Your task to perform on an android device: Do I have any events this weekend? Image 0: 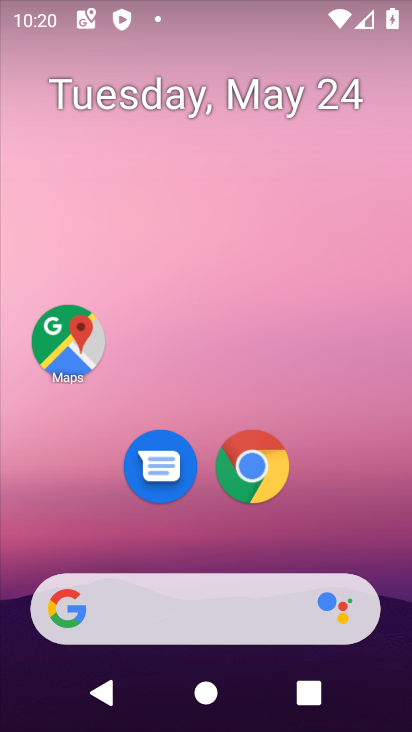
Step 0: drag from (396, 568) to (393, 310)
Your task to perform on an android device: Do I have any events this weekend? Image 1: 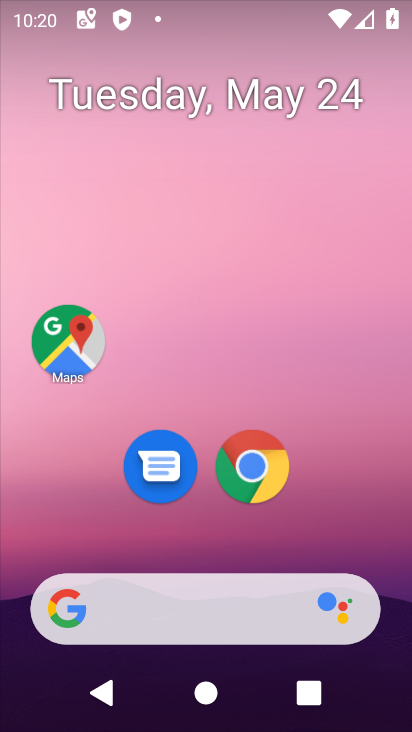
Step 1: drag from (384, 557) to (385, 229)
Your task to perform on an android device: Do I have any events this weekend? Image 2: 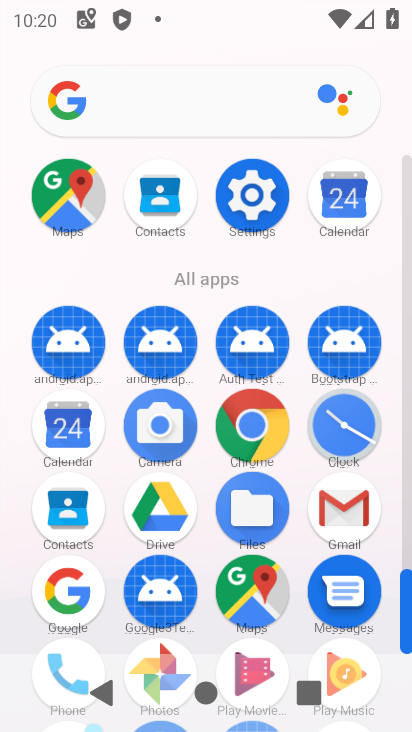
Step 2: click (72, 446)
Your task to perform on an android device: Do I have any events this weekend? Image 3: 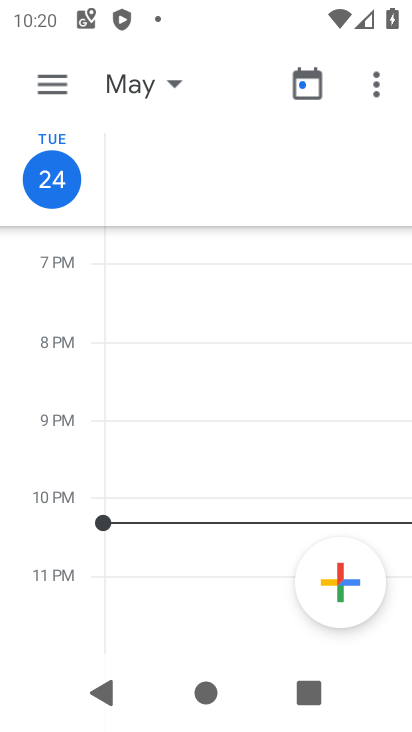
Step 3: click (55, 89)
Your task to perform on an android device: Do I have any events this weekend? Image 4: 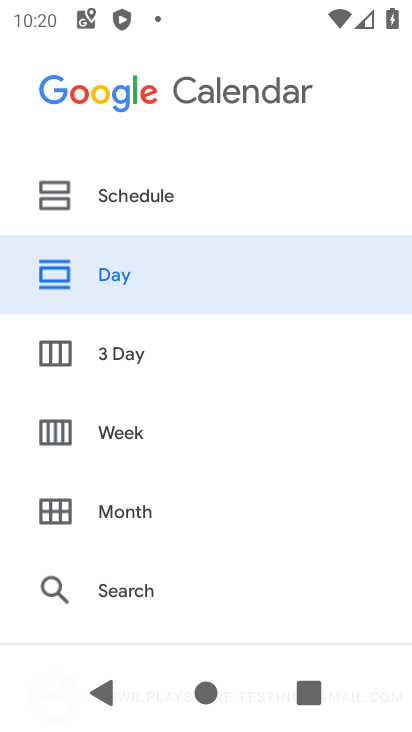
Step 4: click (129, 201)
Your task to perform on an android device: Do I have any events this weekend? Image 5: 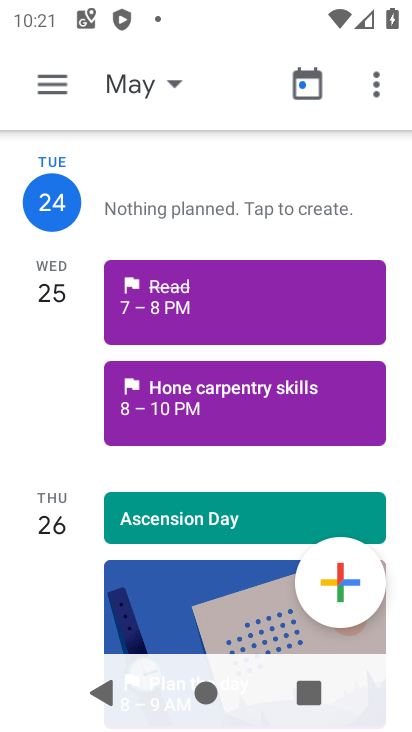
Step 5: drag from (89, 494) to (84, 362)
Your task to perform on an android device: Do I have any events this weekend? Image 6: 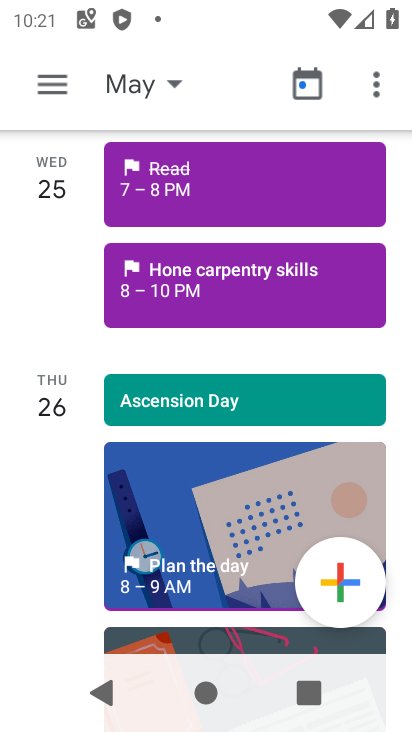
Step 6: drag from (61, 555) to (76, 367)
Your task to perform on an android device: Do I have any events this weekend? Image 7: 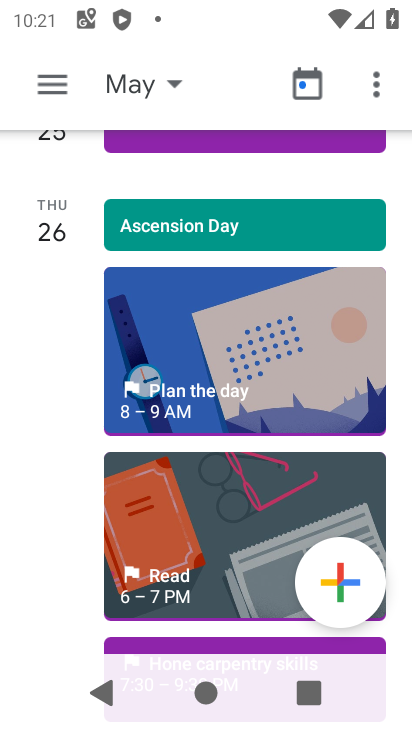
Step 7: drag from (55, 567) to (75, 434)
Your task to perform on an android device: Do I have any events this weekend? Image 8: 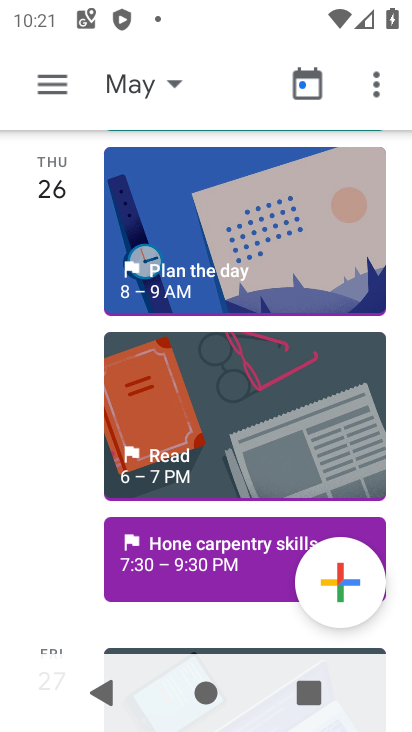
Step 8: drag from (57, 610) to (59, 430)
Your task to perform on an android device: Do I have any events this weekend? Image 9: 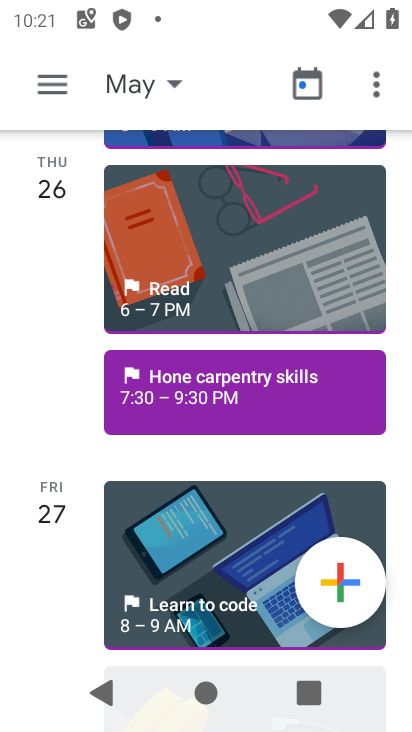
Step 9: drag from (56, 616) to (71, 427)
Your task to perform on an android device: Do I have any events this weekend? Image 10: 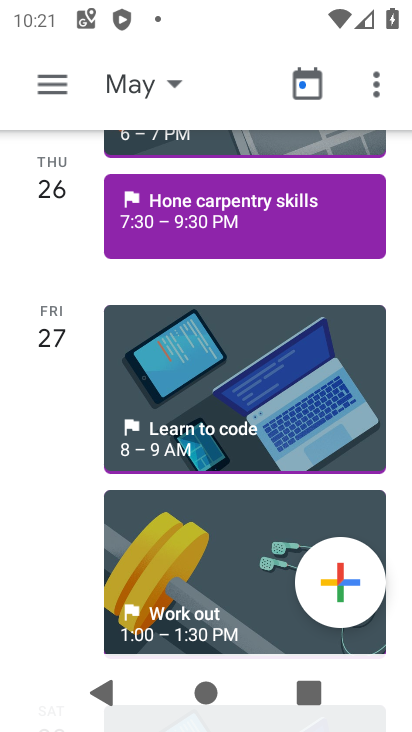
Step 10: drag from (61, 586) to (64, 353)
Your task to perform on an android device: Do I have any events this weekend? Image 11: 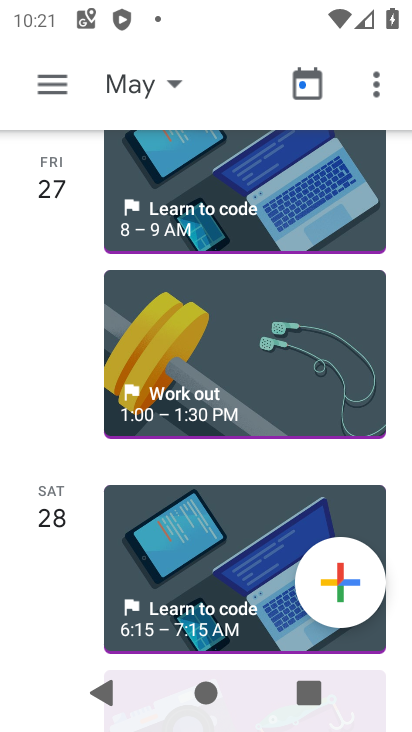
Step 11: drag from (71, 608) to (82, 365)
Your task to perform on an android device: Do I have any events this weekend? Image 12: 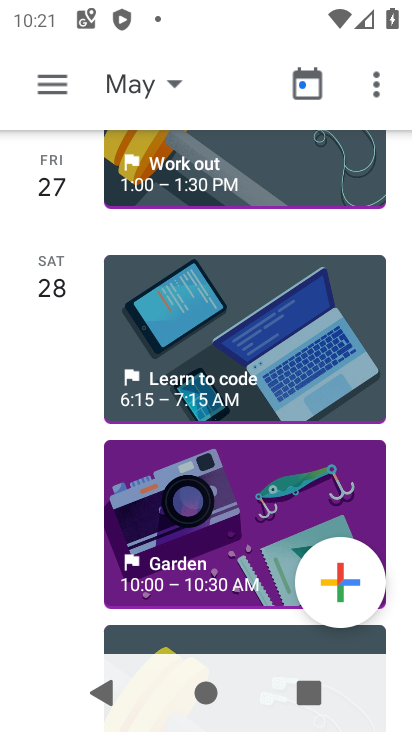
Step 12: click (244, 337)
Your task to perform on an android device: Do I have any events this weekend? Image 13: 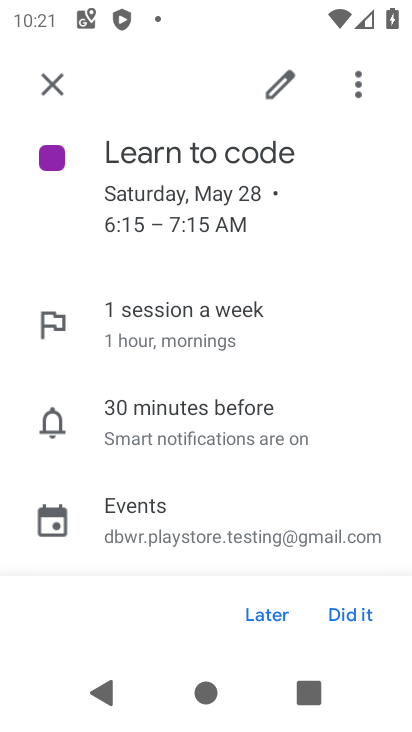
Step 13: task complete